Your task to perform on an android device: Show me the alarms in the clock app Image 0: 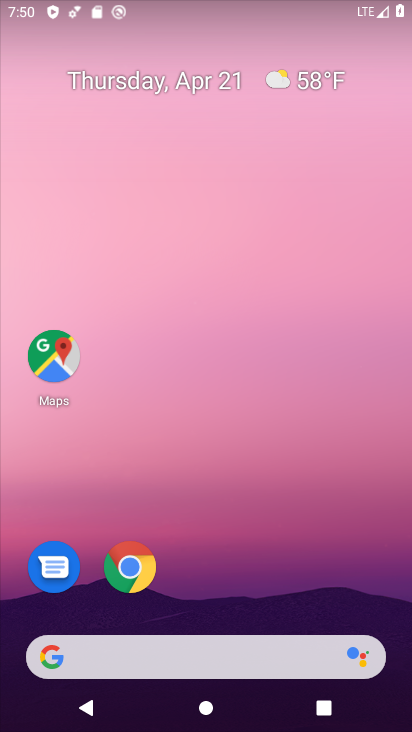
Step 0: drag from (259, 579) to (291, 93)
Your task to perform on an android device: Show me the alarms in the clock app Image 1: 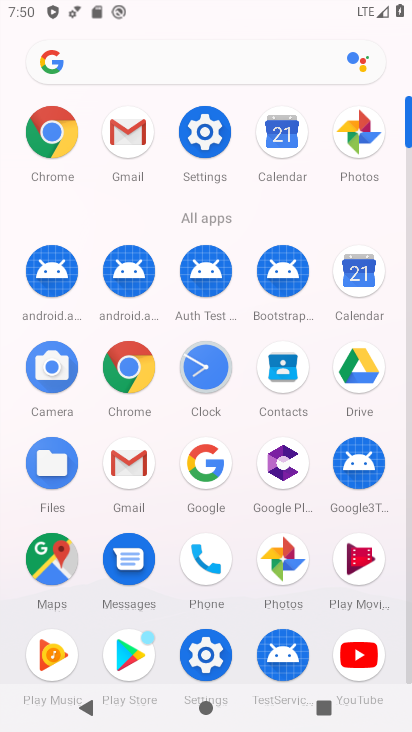
Step 1: click (205, 368)
Your task to perform on an android device: Show me the alarms in the clock app Image 2: 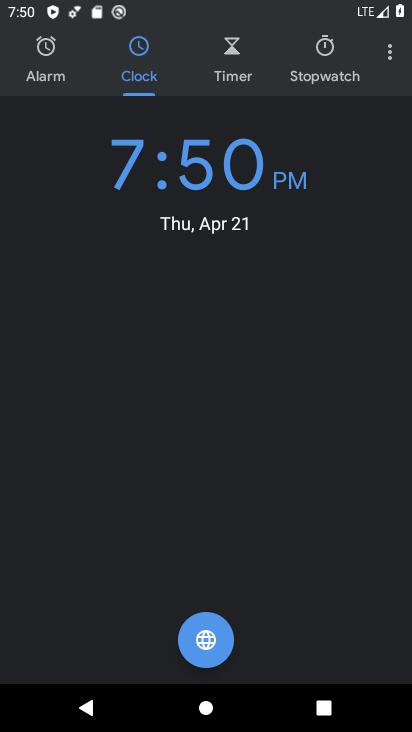
Step 2: click (48, 49)
Your task to perform on an android device: Show me the alarms in the clock app Image 3: 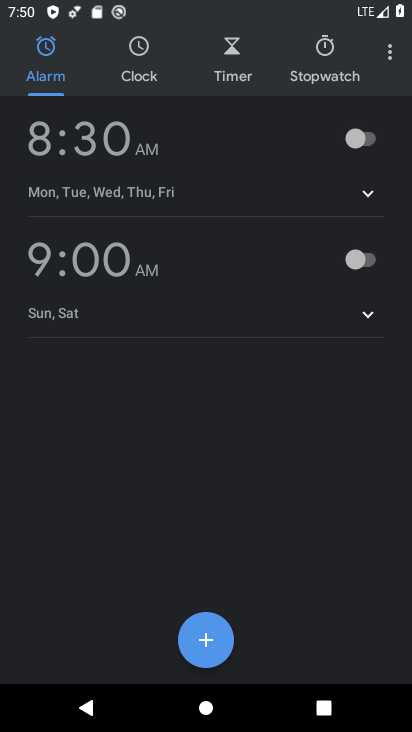
Step 3: task complete